Your task to perform on an android device: turn on sleep mode Image 0: 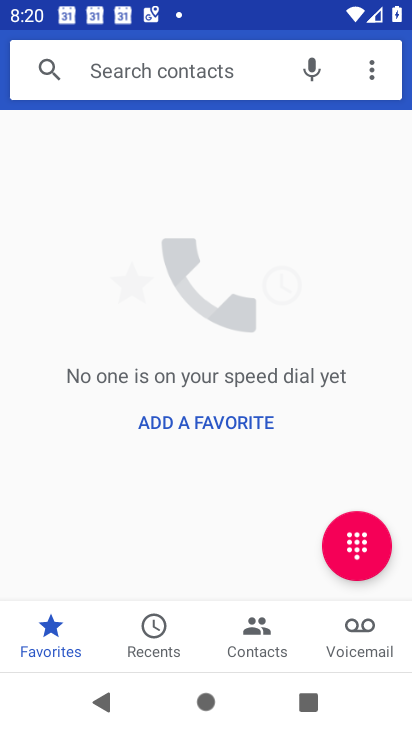
Step 0: press home button
Your task to perform on an android device: turn on sleep mode Image 1: 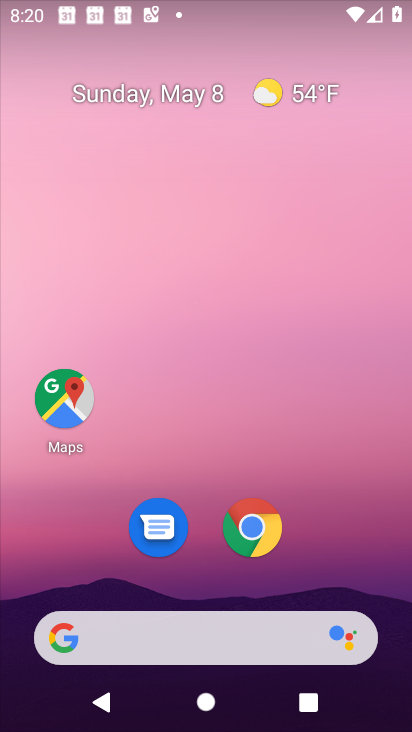
Step 1: drag from (274, 396) to (253, 57)
Your task to perform on an android device: turn on sleep mode Image 2: 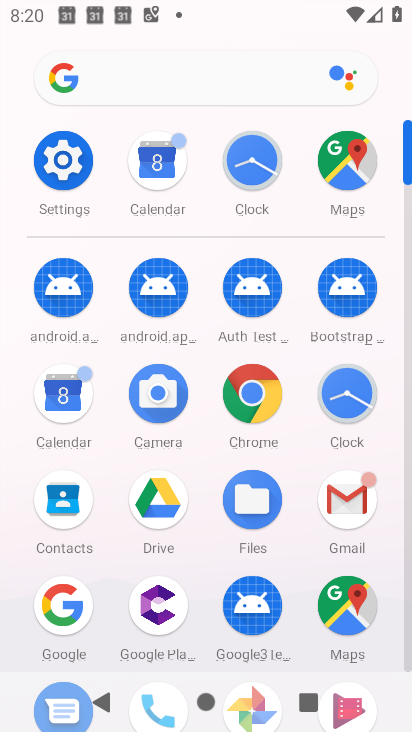
Step 2: click (76, 163)
Your task to perform on an android device: turn on sleep mode Image 3: 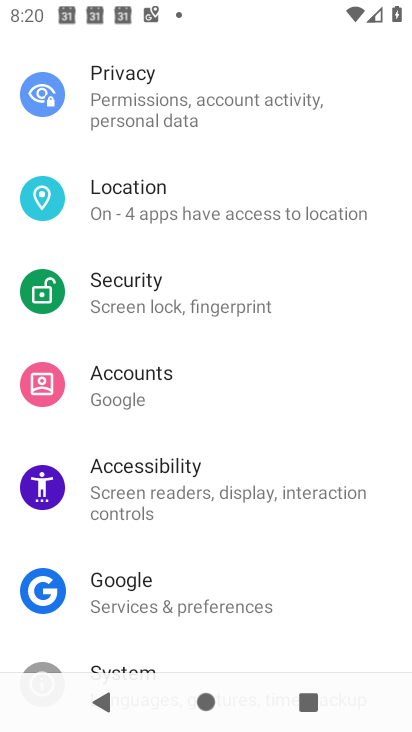
Step 3: drag from (179, 609) to (170, 489)
Your task to perform on an android device: turn on sleep mode Image 4: 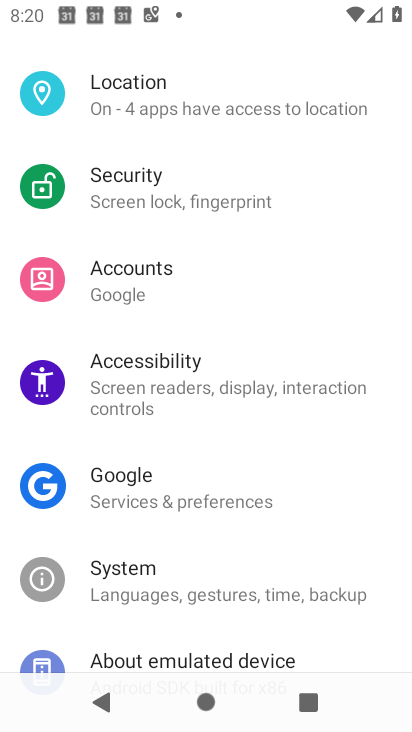
Step 4: drag from (152, 585) to (139, 493)
Your task to perform on an android device: turn on sleep mode Image 5: 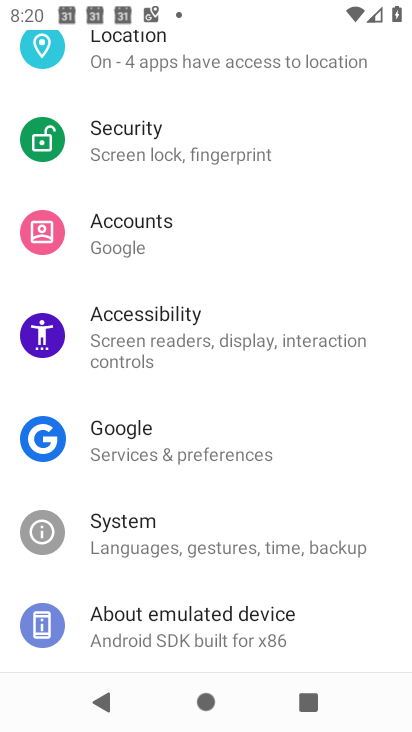
Step 5: drag from (178, 590) to (169, 522)
Your task to perform on an android device: turn on sleep mode Image 6: 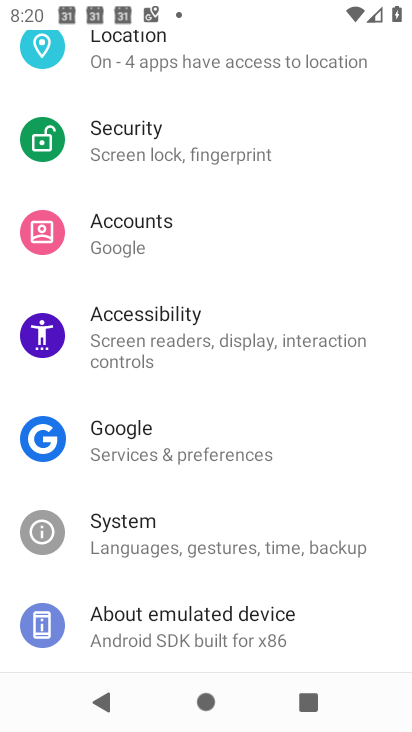
Step 6: drag from (164, 474) to (196, 550)
Your task to perform on an android device: turn on sleep mode Image 7: 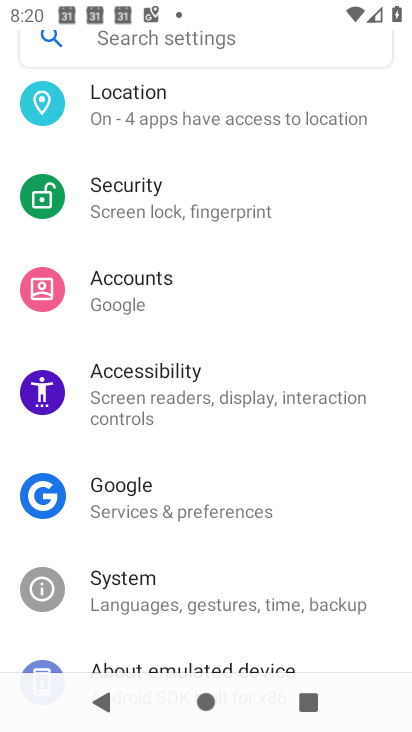
Step 7: drag from (206, 443) to (219, 492)
Your task to perform on an android device: turn on sleep mode Image 8: 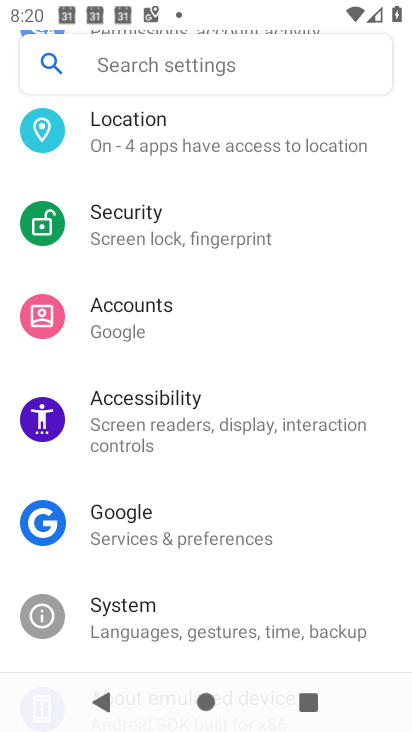
Step 8: drag from (250, 386) to (274, 472)
Your task to perform on an android device: turn on sleep mode Image 9: 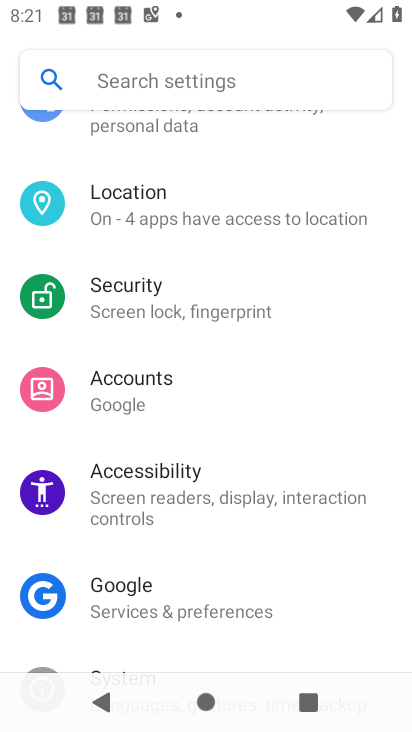
Step 9: drag from (272, 403) to (298, 507)
Your task to perform on an android device: turn on sleep mode Image 10: 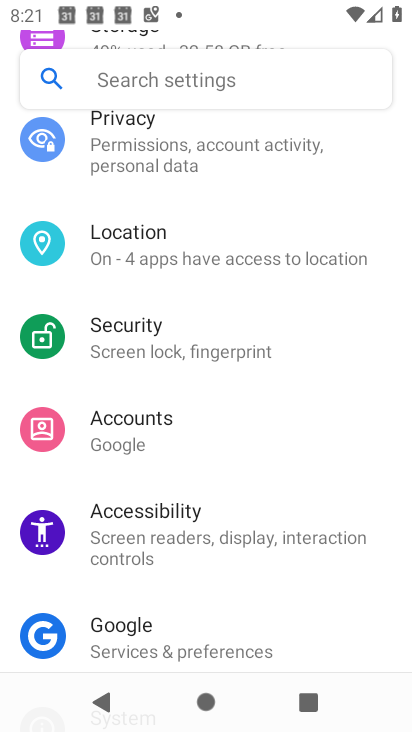
Step 10: drag from (290, 373) to (292, 448)
Your task to perform on an android device: turn on sleep mode Image 11: 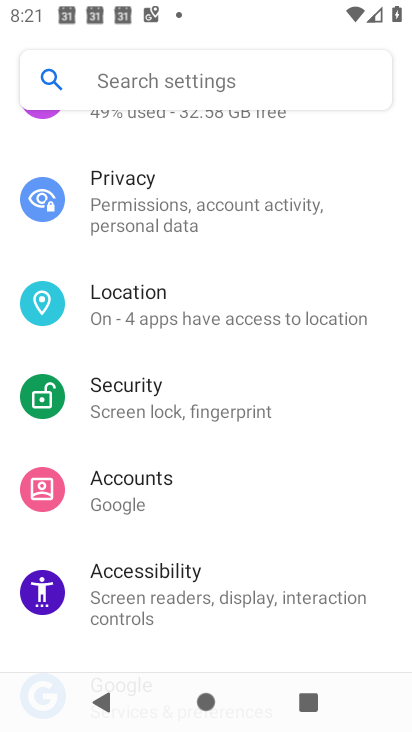
Step 11: drag from (249, 374) to (249, 428)
Your task to perform on an android device: turn on sleep mode Image 12: 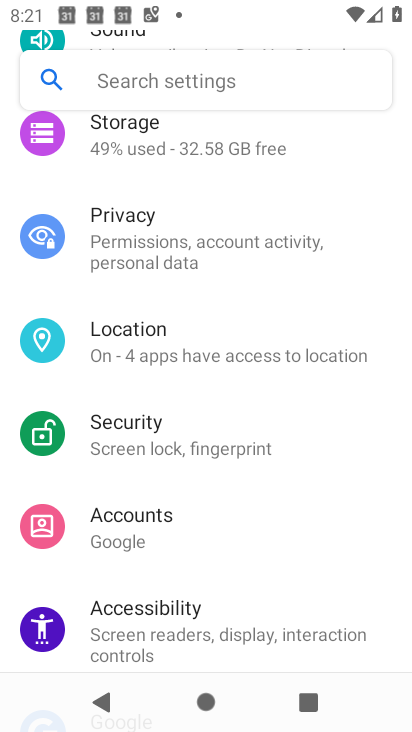
Step 12: drag from (239, 348) to (249, 440)
Your task to perform on an android device: turn on sleep mode Image 13: 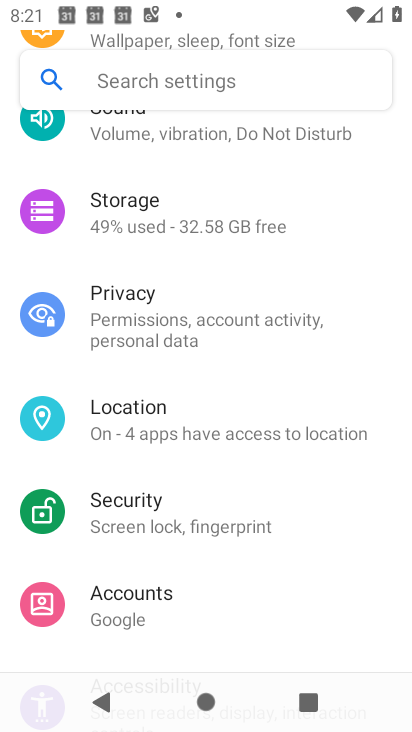
Step 13: drag from (234, 351) to (225, 433)
Your task to perform on an android device: turn on sleep mode Image 14: 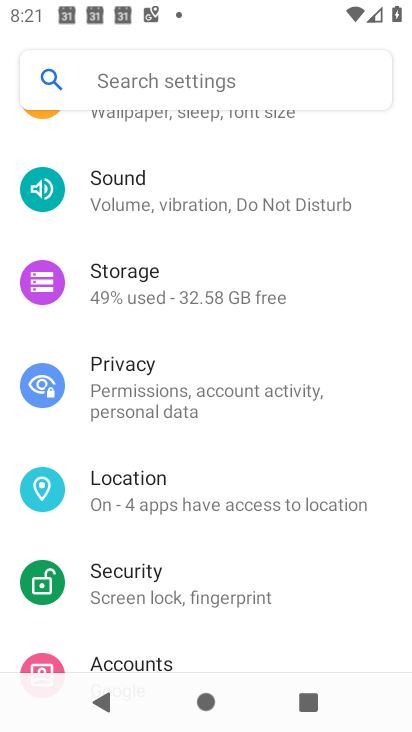
Step 14: drag from (220, 345) to (223, 402)
Your task to perform on an android device: turn on sleep mode Image 15: 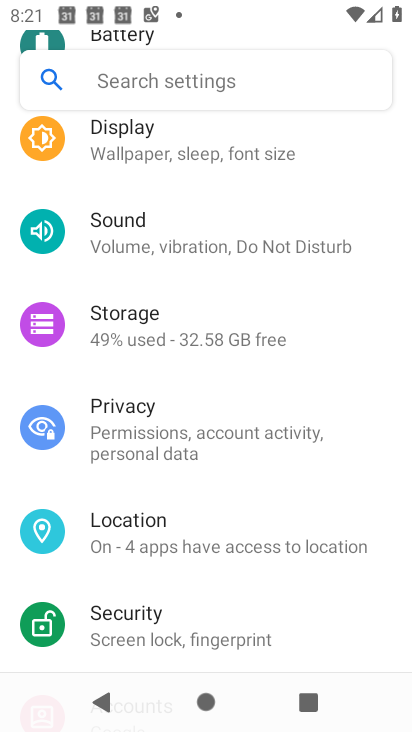
Step 15: drag from (218, 342) to (218, 412)
Your task to perform on an android device: turn on sleep mode Image 16: 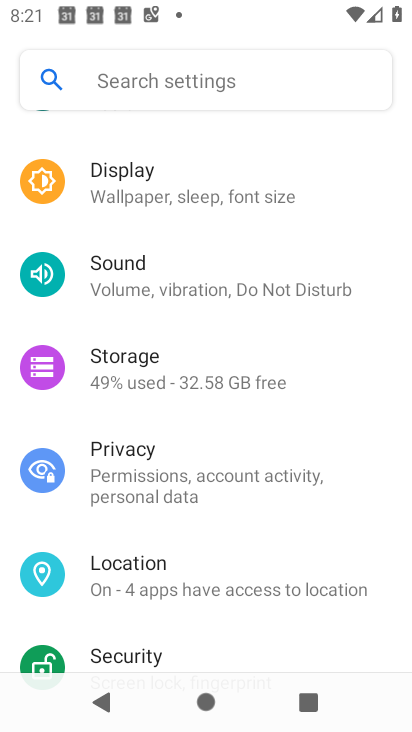
Step 16: drag from (215, 357) to (222, 415)
Your task to perform on an android device: turn on sleep mode Image 17: 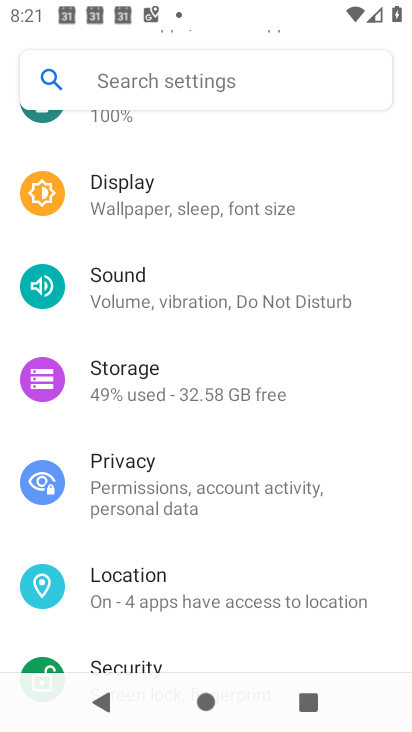
Step 17: drag from (223, 359) to (233, 413)
Your task to perform on an android device: turn on sleep mode Image 18: 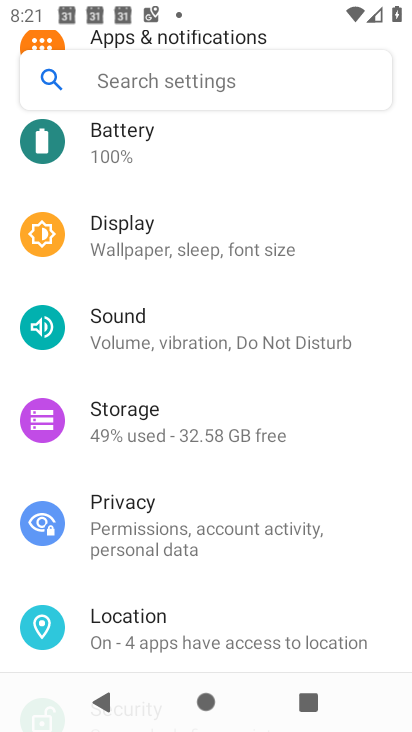
Step 18: drag from (230, 360) to (246, 422)
Your task to perform on an android device: turn on sleep mode Image 19: 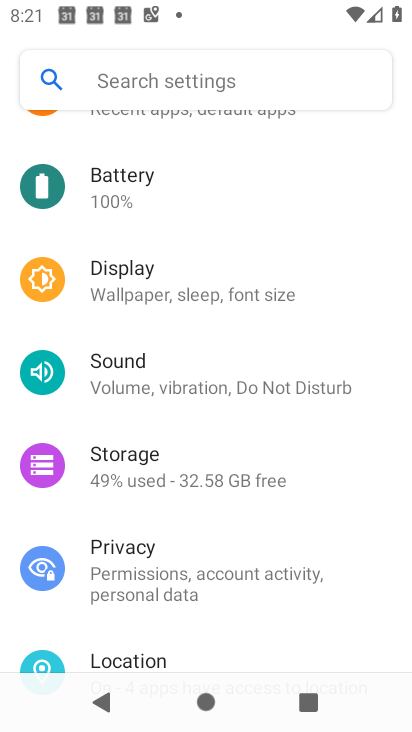
Step 19: drag from (243, 371) to (250, 477)
Your task to perform on an android device: turn on sleep mode Image 20: 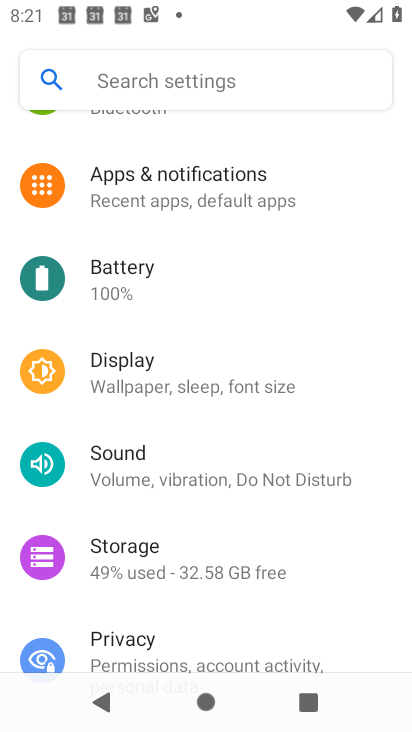
Step 20: drag from (243, 280) to (256, 386)
Your task to perform on an android device: turn on sleep mode Image 21: 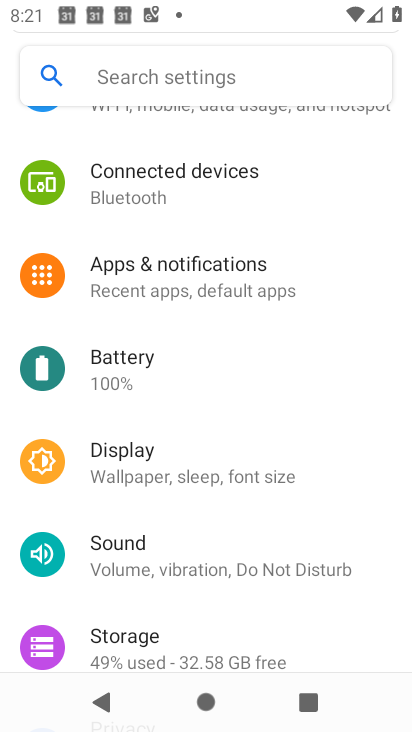
Step 21: drag from (254, 302) to (242, 482)
Your task to perform on an android device: turn on sleep mode Image 22: 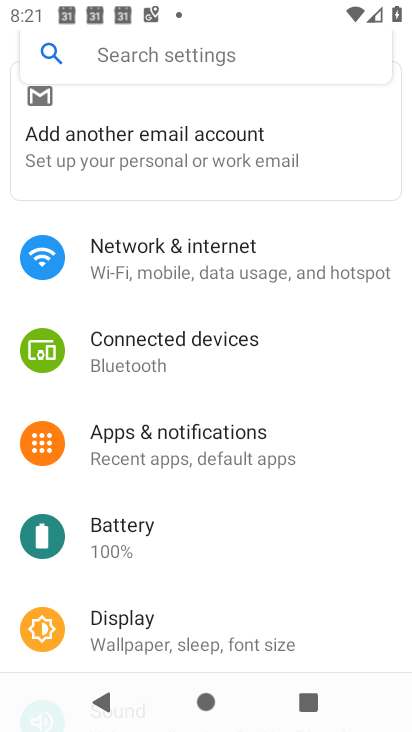
Step 22: click (243, 642)
Your task to perform on an android device: turn on sleep mode Image 23: 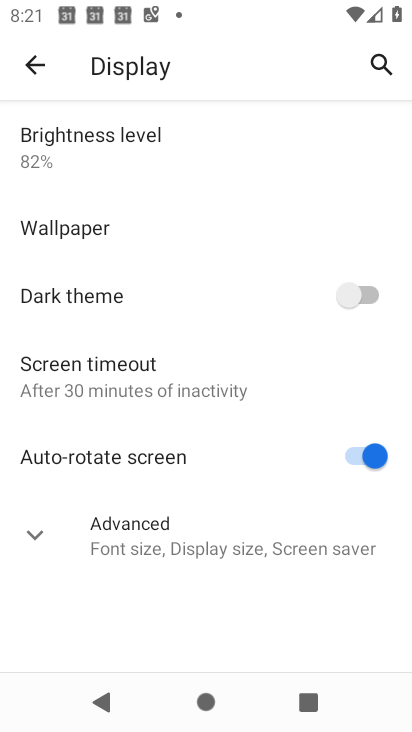
Step 23: click (218, 536)
Your task to perform on an android device: turn on sleep mode Image 24: 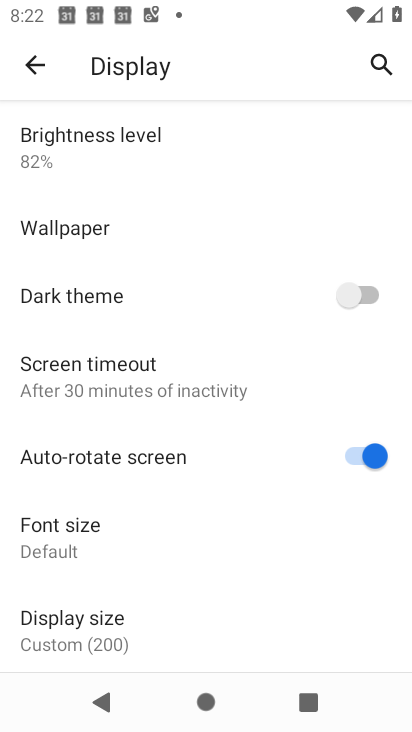
Step 24: task complete